Your task to perform on an android device: turn on bluetooth scan Image 0: 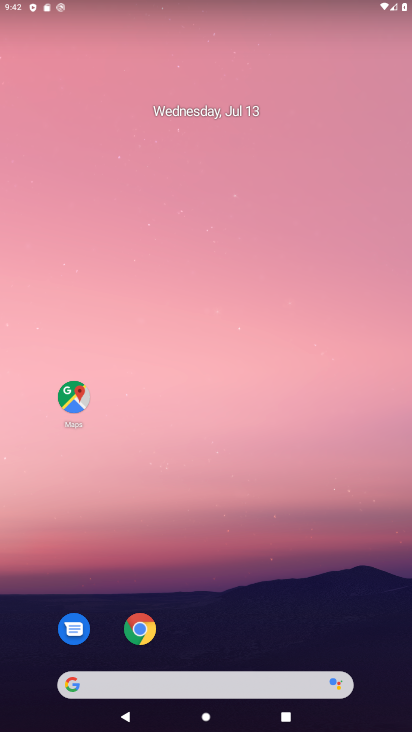
Step 0: drag from (249, 637) to (301, 98)
Your task to perform on an android device: turn on bluetooth scan Image 1: 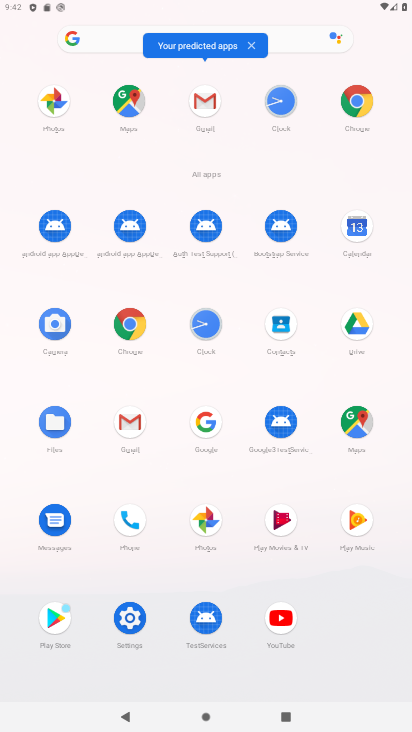
Step 1: click (128, 620)
Your task to perform on an android device: turn on bluetooth scan Image 2: 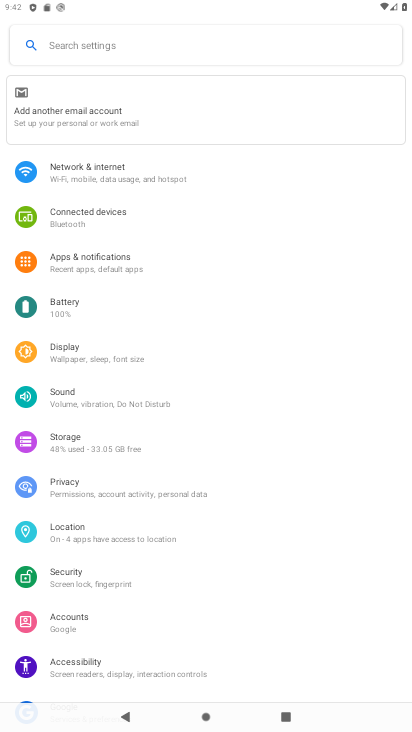
Step 2: click (99, 523)
Your task to perform on an android device: turn on bluetooth scan Image 3: 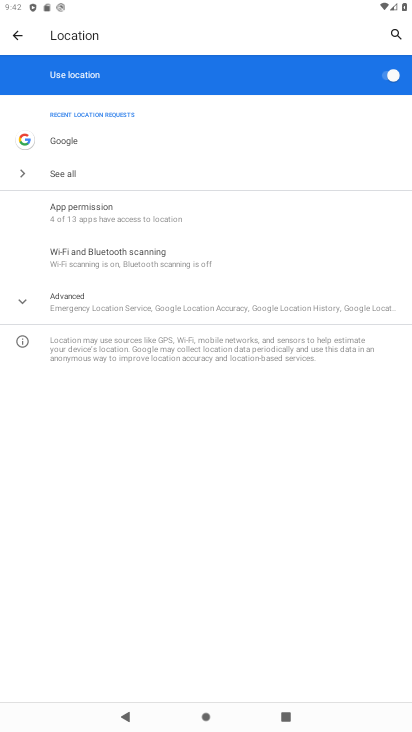
Step 3: click (118, 241)
Your task to perform on an android device: turn on bluetooth scan Image 4: 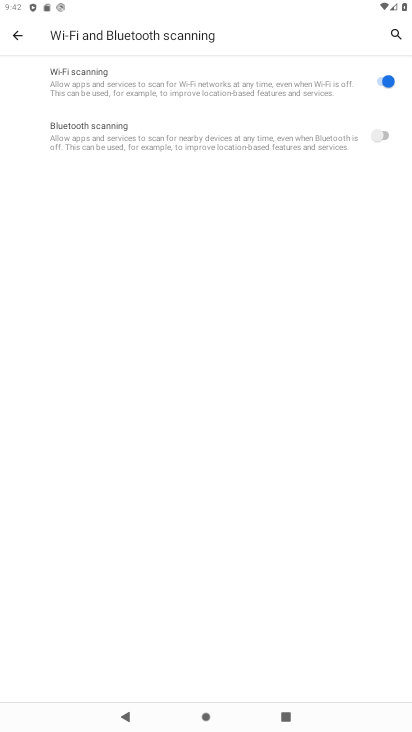
Step 4: click (384, 135)
Your task to perform on an android device: turn on bluetooth scan Image 5: 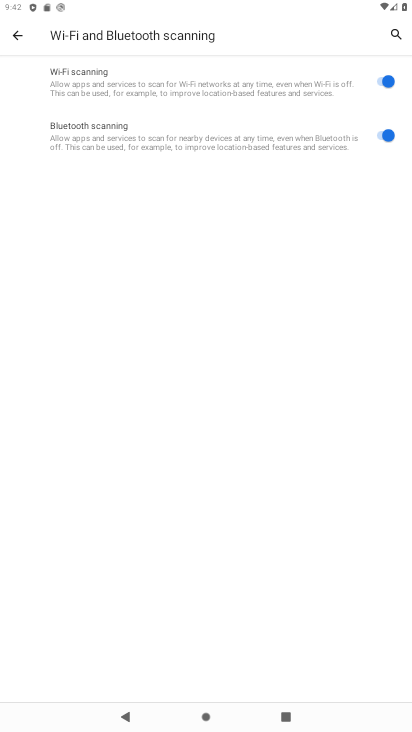
Step 5: task complete